Your task to perform on an android device: Do I have any events this weekend? Image 0: 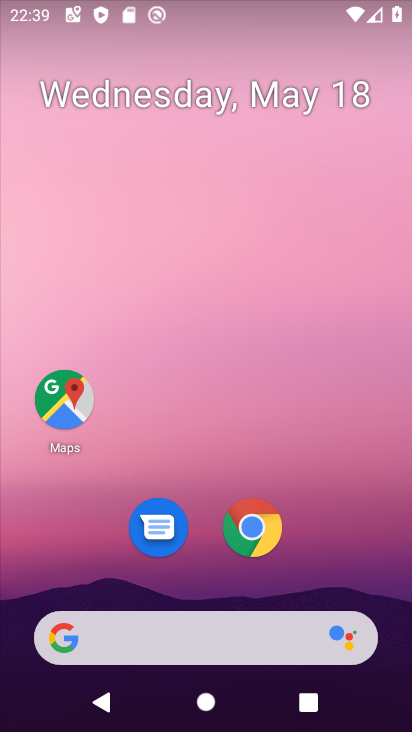
Step 0: drag from (320, 573) to (308, 314)
Your task to perform on an android device: Do I have any events this weekend? Image 1: 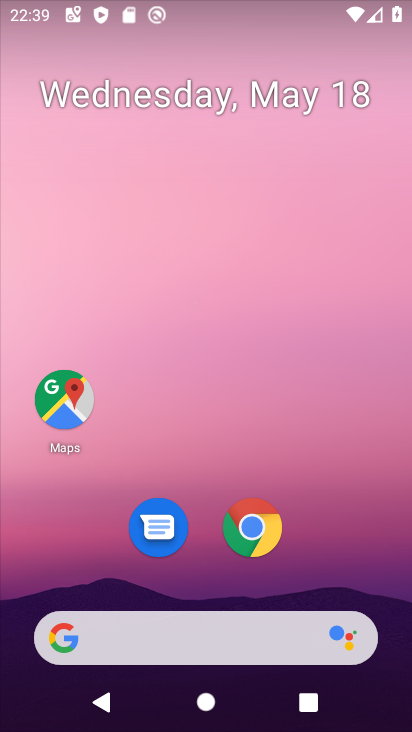
Step 1: drag from (348, 570) to (408, 193)
Your task to perform on an android device: Do I have any events this weekend? Image 2: 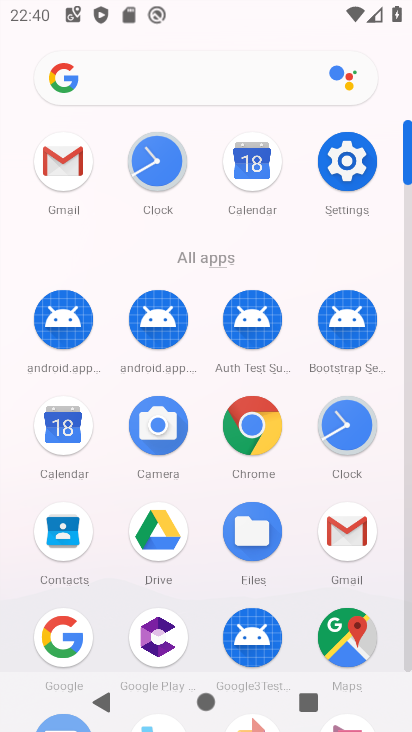
Step 2: click (233, 198)
Your task to perform on an android device: Do I have any events this weekend? Image 3: 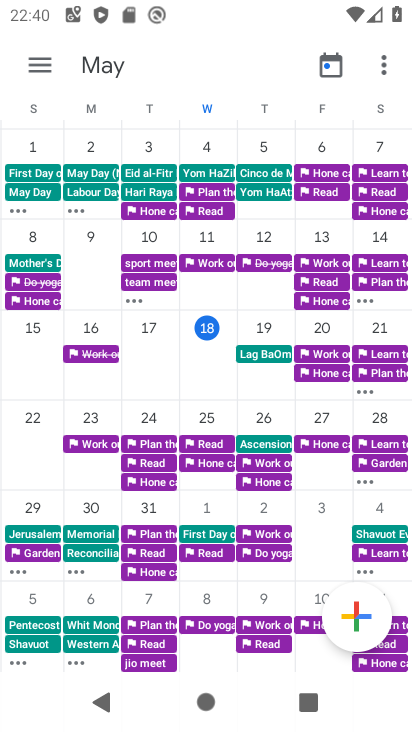
Step 3: task complete